Your task to perform on an android device: Go to eBay Image 0: 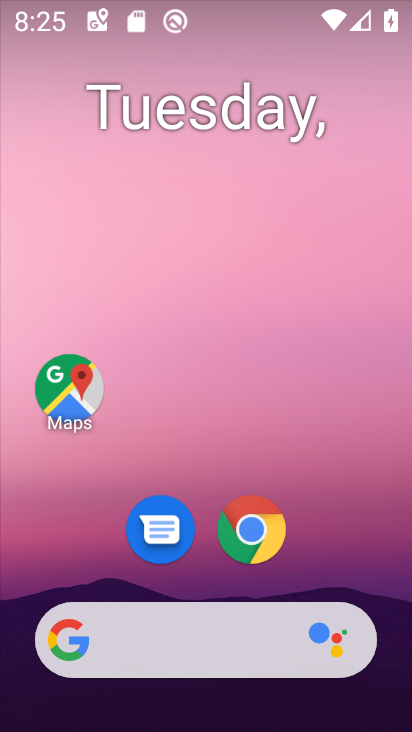
Step 0: click (256, 525)
Your task to perform on an android device: Go to eBay Image 1: 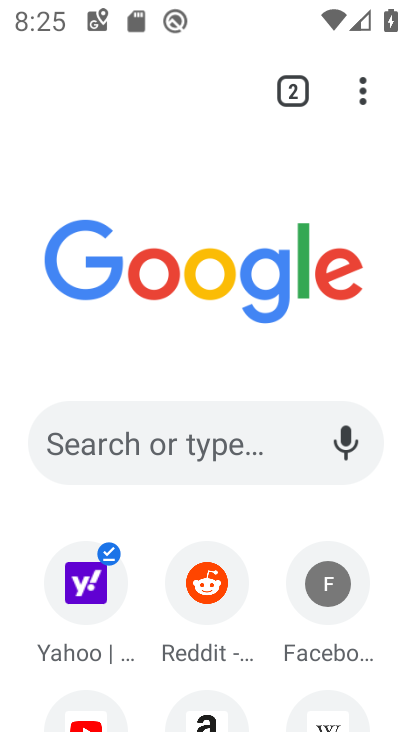
Step 1: drag from (191, 653) to (276, 207)
Your task to perform on an android device: Go to eBay Image 2: 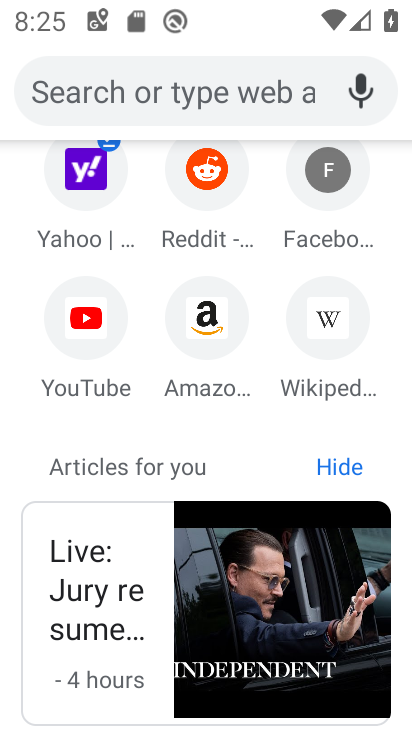
Step 2: drag from (224, 152) to (243, 570)
Your task to perform on an android device: Go to eBay Image 3: 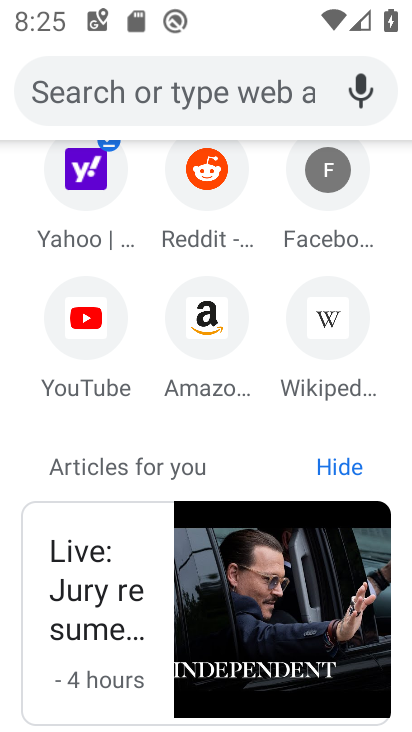
Step 3: click (136, 83)
Your task to perform on an android device: Go to eBay Image 4: 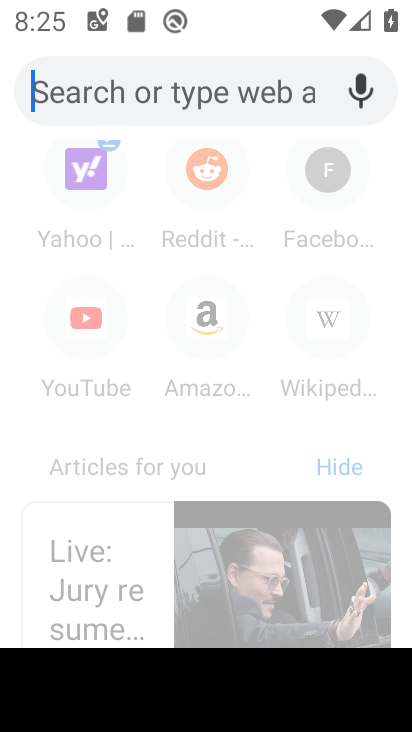
Step 4: type "ebay"
Your task to perform on an android device: Go to eBay Image 5: 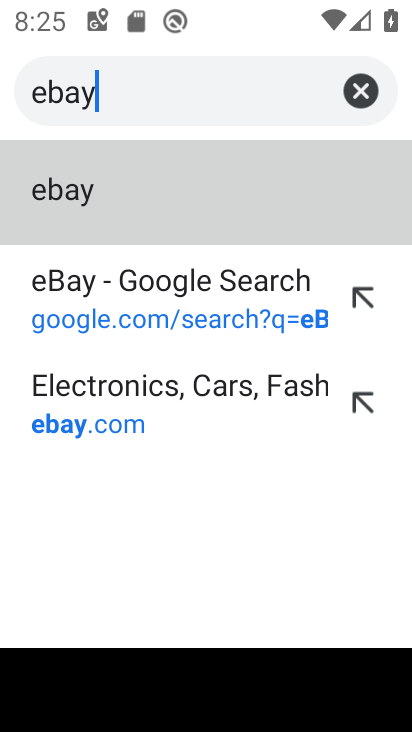
Step 5: click (90, 162)
Your task to perform on an android device: Go to eBay Image 6: 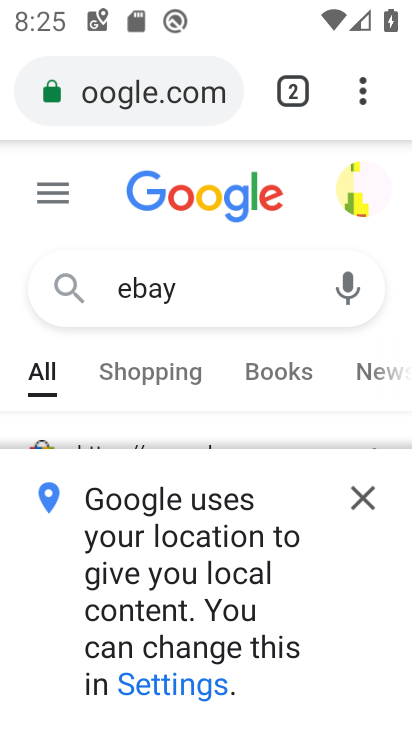
Step 6: click (359, 506)
Your task to perform on an android device: Go to eBay Image 7: 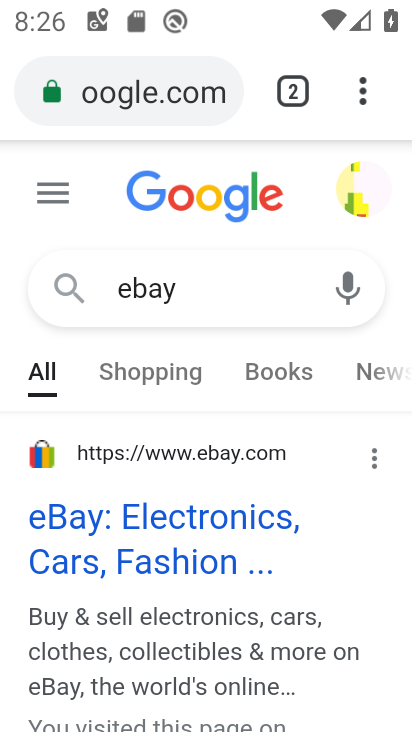
Step 7: task complete